Your task to perform on an android device: find photos in the google photos app Image 0: 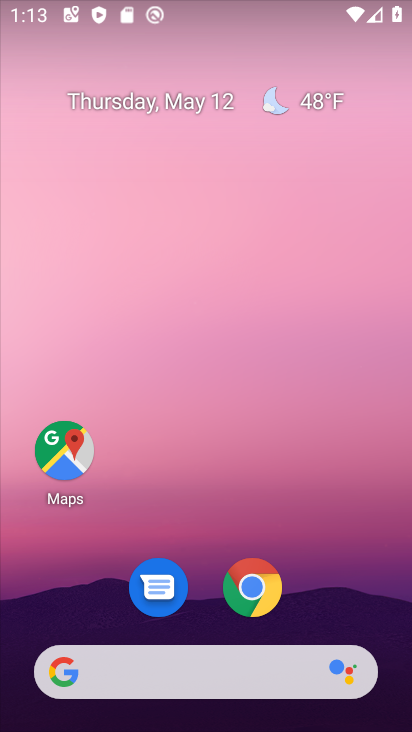
Step 0: click (246, 204)
Your task to perform on an android device: find photos in the google photos app Image 1: 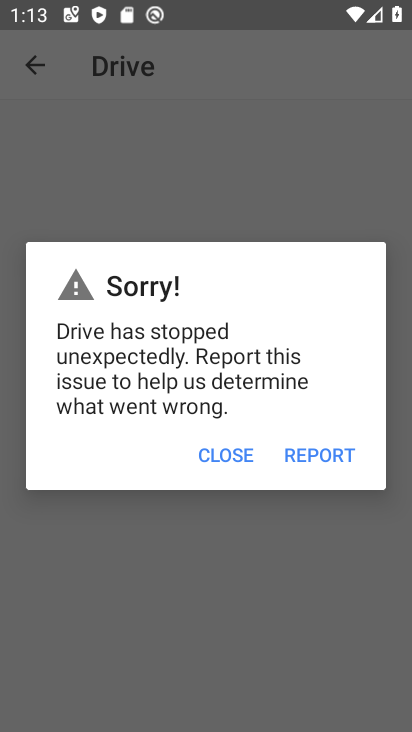
Step 1: press home button
Your task to perform on an android device: find photos in the google photos app Image 2: 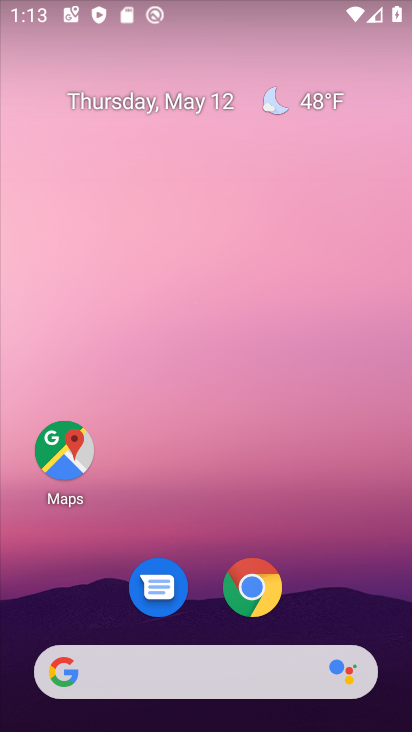
Step 2: drag from (213, 570) to (201, 197)
Your task to perform on an android device: find photos in the google photos app Image 3: 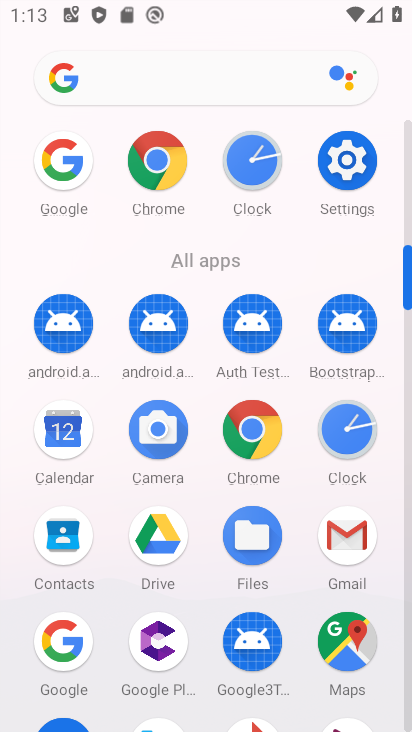
Step 3: drag from (235, 570) to (214, 341)
Your task to perform on an android device: find photos in the google photos app Image 4: 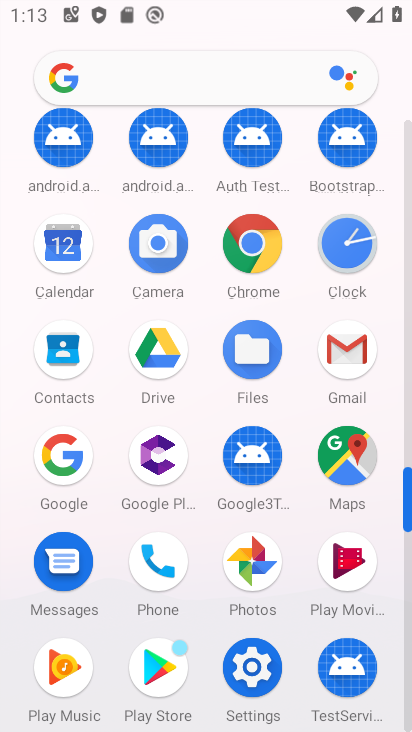
Step 4: click (268, 589)
Your task to perform on an android device: find photos in the google photos app Image 5: 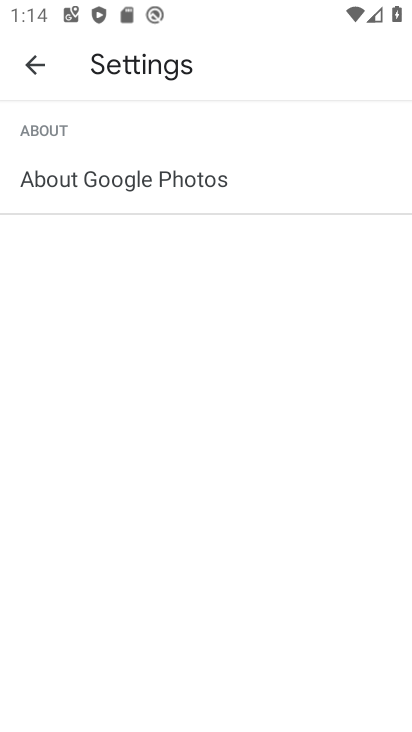
Step 5: click (25, 66)
Your task to perform on an android device: find photos in the google photos app Image 6: 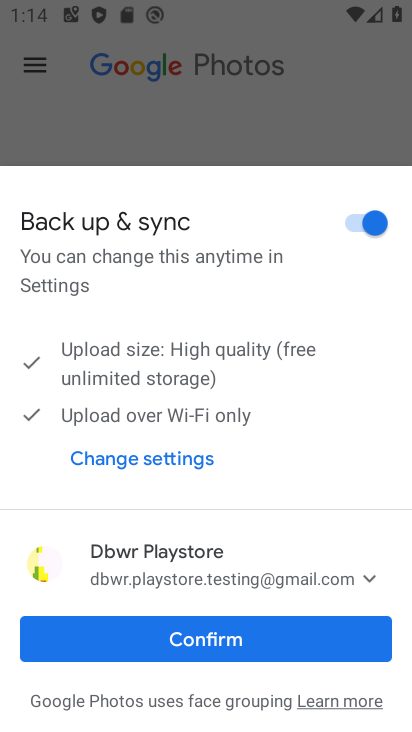
Step 6: click (286, 632)
Your task to perform on an android device: find photos in the google photos app Image 7: 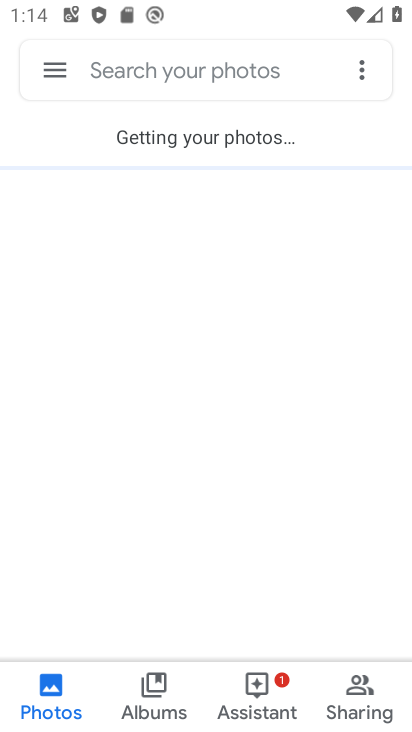
Step 7: click (48, 78)
Your task to perform on an android device: find photos in the google photos app Image 8: 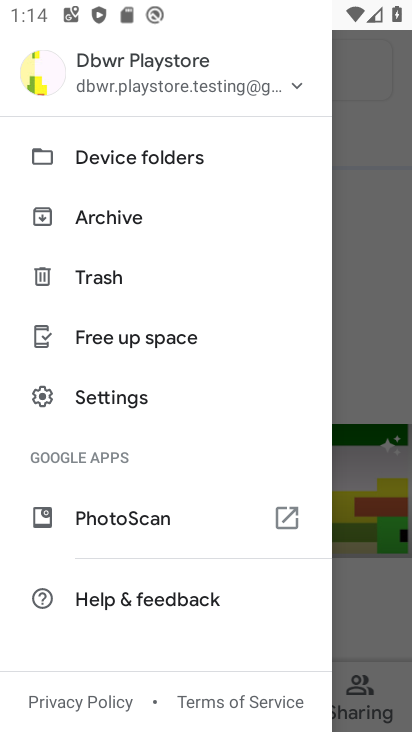
Step 8: click (395, 278)
Your task to perform on an android device: find photos in the google photos app Image 9: 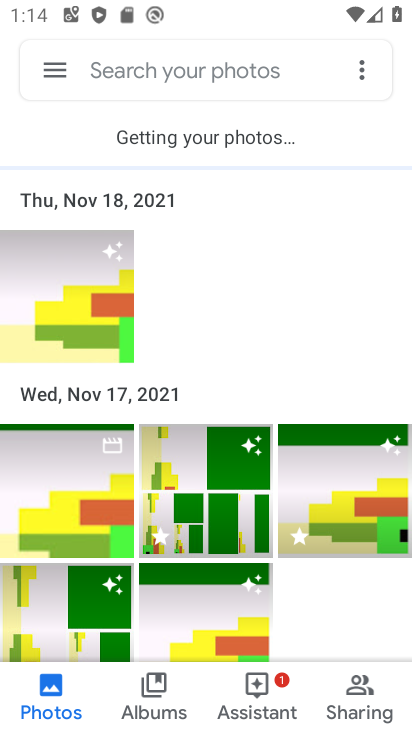
Step 9: task complete